Your task to perform on an android device: Is it going to rain this weekend? Image 0: 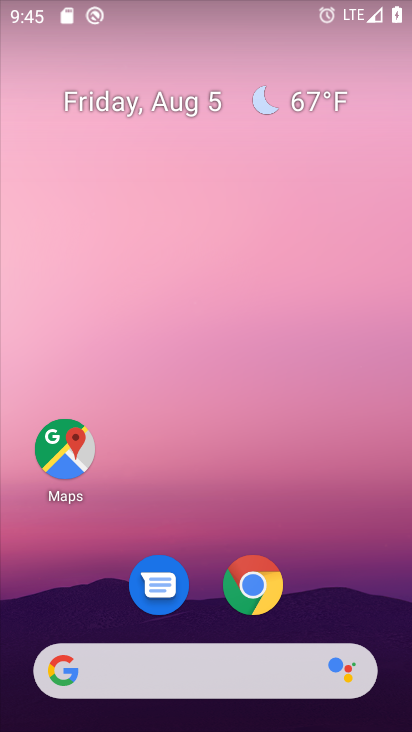
Step 0: click (297, 99)
Your task to perform on an android device: Is it going to rain this weekend? Image 1: 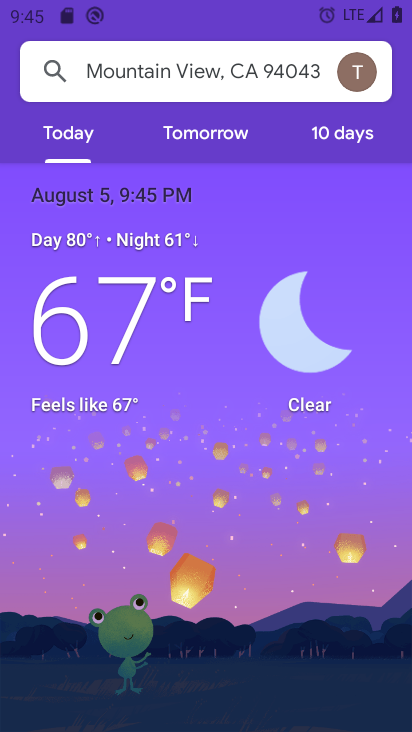
Step 1: click (318, 133)
Your task to perform on an android device: Is it going to rain this weekend? Image 2: 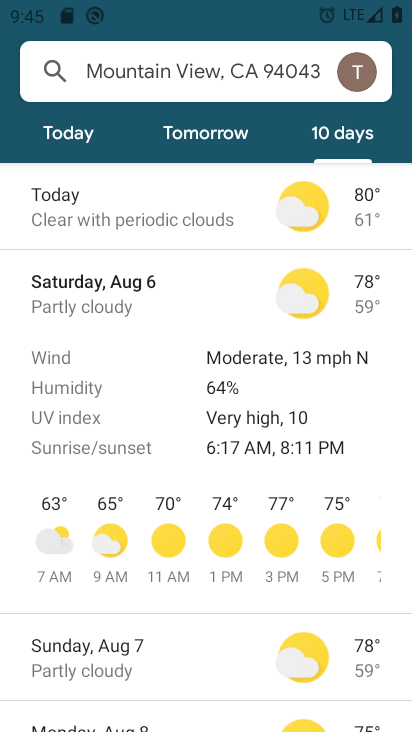
Step 2: task complete